Your task to perform on an android device: change text size in settings app Image 0: 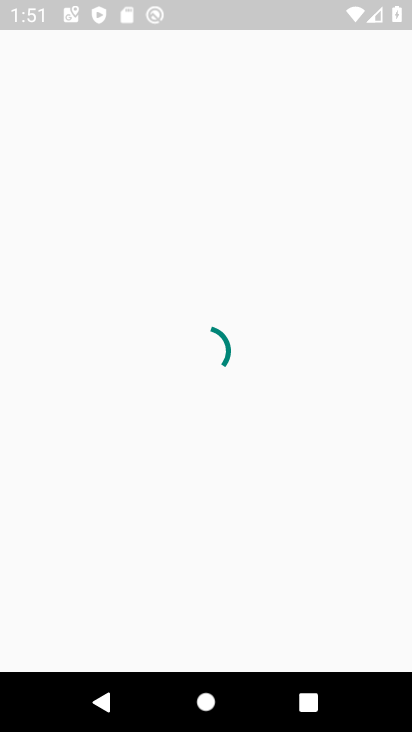
Step 0: drag from (344, 579) to (292, 332)
Your task to perform on an android device: change text size in settings app Image 1: 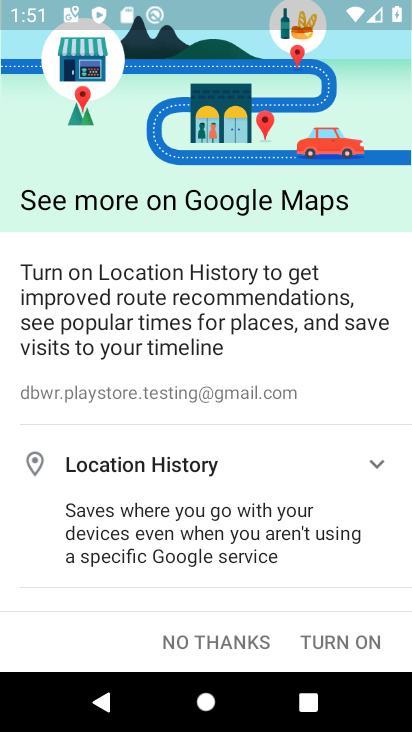
Step 1: press home button
Your task to perform on an android device: change text size in settings app Image 2: 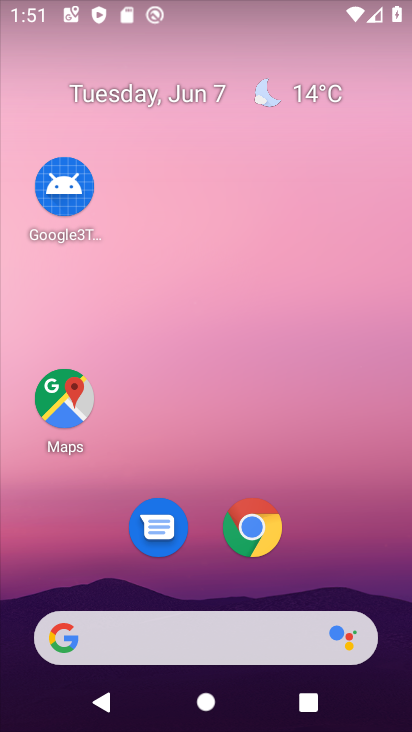
Step 2: drag from (291, 574) to (338, 12)
Your task to perform on an android device: change text size in settings app Image 3: 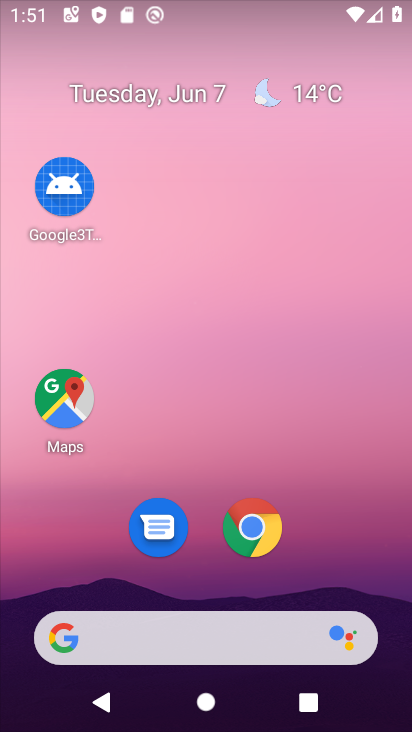
Step 3: click (397, 396)
Your task to perform on an android device: change text size in settings app Image 4: 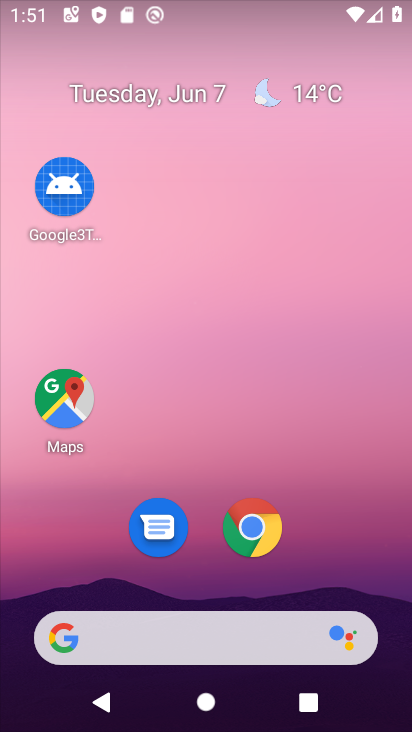
Step 4: drag from (355, 546) to (336, 79)
Your task to perform on an android device: change text size in settings app Image 5: 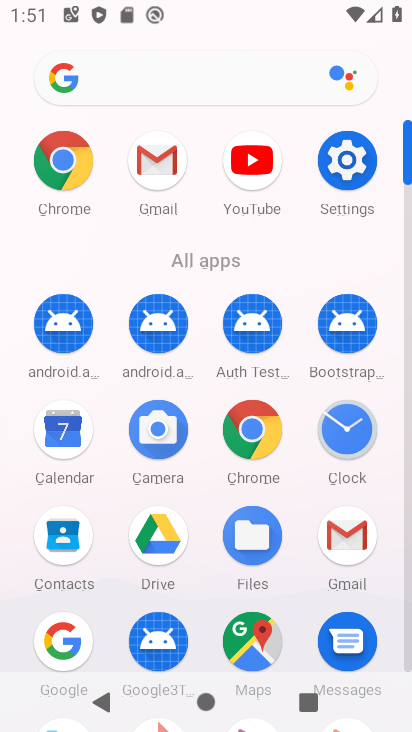
Step 5: click (340, 170)
Your task to perform on an android device: change text size in settings app Image 6: 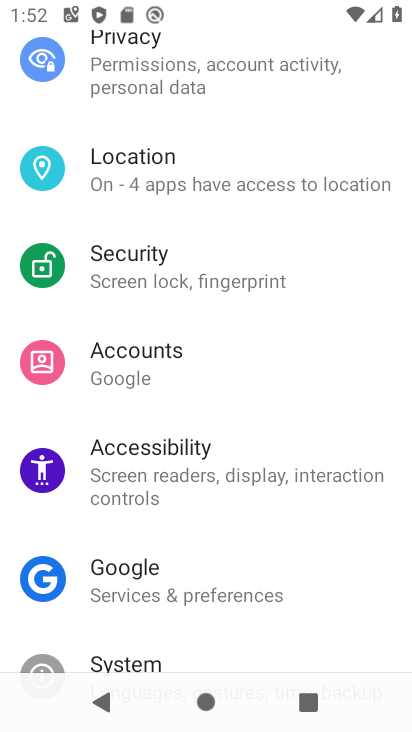
Step 6: drag from (200, 656) to (245, 100)
Your task to perform on an android device: change text size in settings app Image 7: 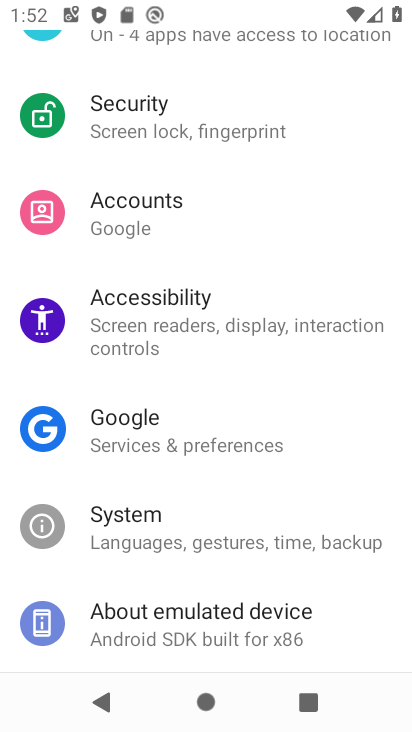
Step 7: drag from (215, 231) to (233, 666)
Your task to perform on an android device: change text size in settings app Image 8: 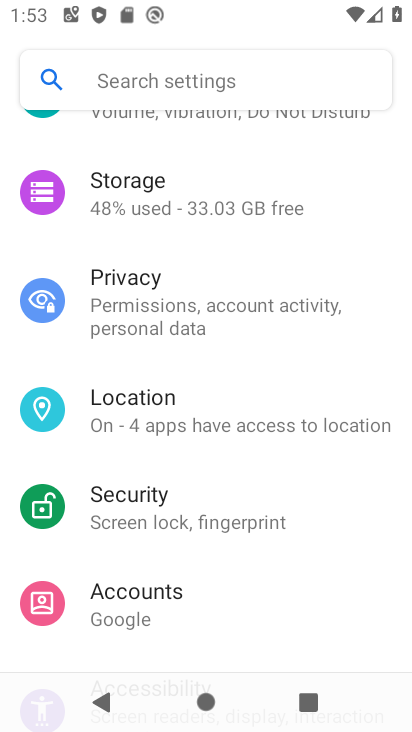
Step 8: drag from (147, 200) to (193, 594)
Your task to perform on an android device: change text size in settings app Image 9: 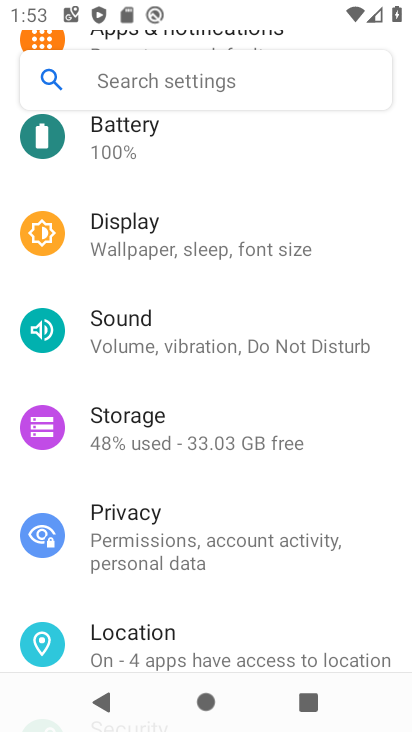
Step 9: click (160, 221)
Your task to perform on an android device: change text size in settings app Image 10: 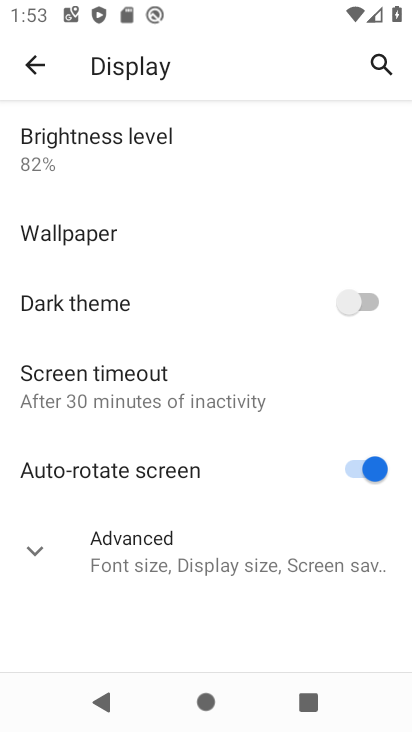
Step 10: click (150, 544)
Your task to perform on an android device: change text size in settings app Image 11: 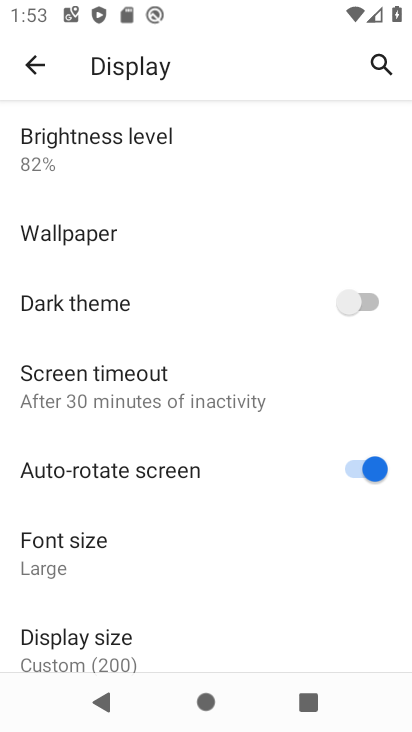
Step 11: click (138, 550)
Your task to perform on an android device: change text size in settings app Image 12: 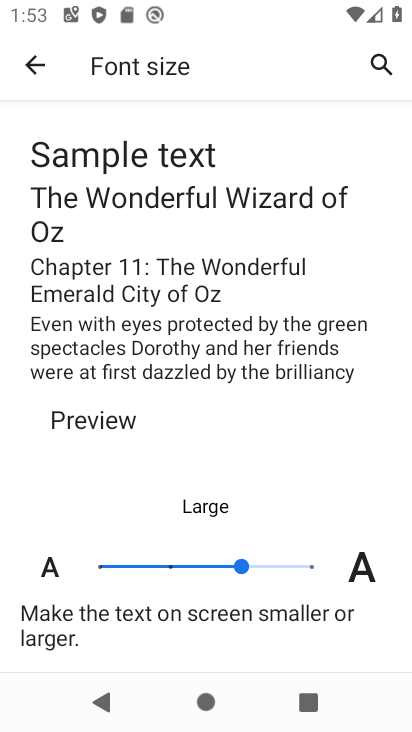
Step 12: click (173, 560)
Your task to perform on an android device: change text size in settings app Image 13: 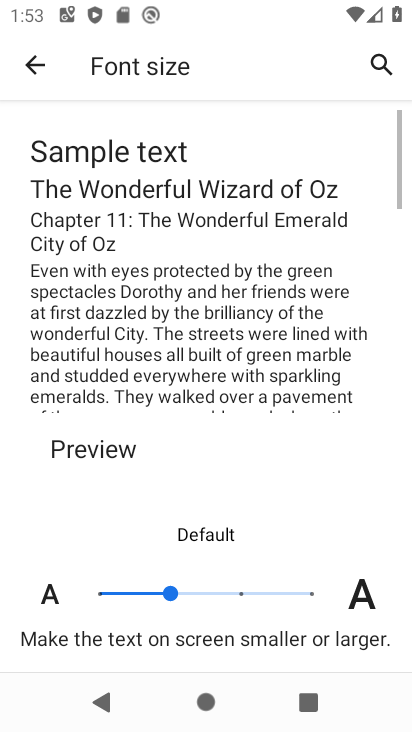
Step 13: task complete